Your task to perform on an android device: Open my contact list Image 0: 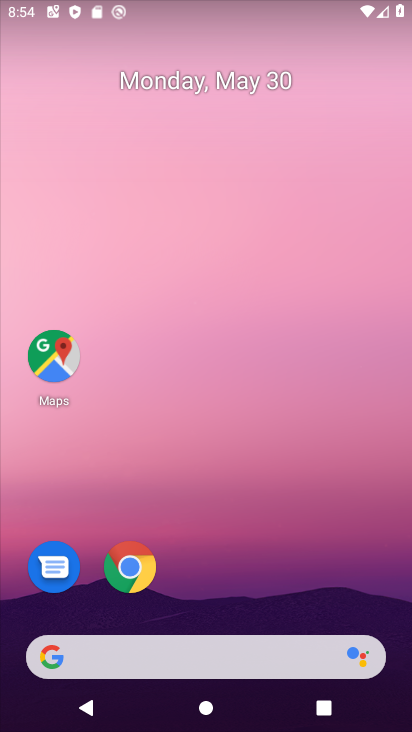
Step 0: drag from (233, 618) to (252, 75)
Your task to perform on an android device: Open my contact list Image 1: 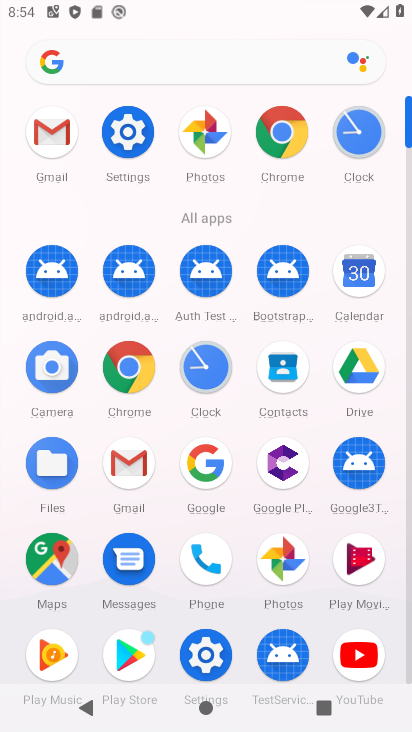
Step 1: click (277, 372)
Your task to perform on an android device: Open my contact list Image 2: 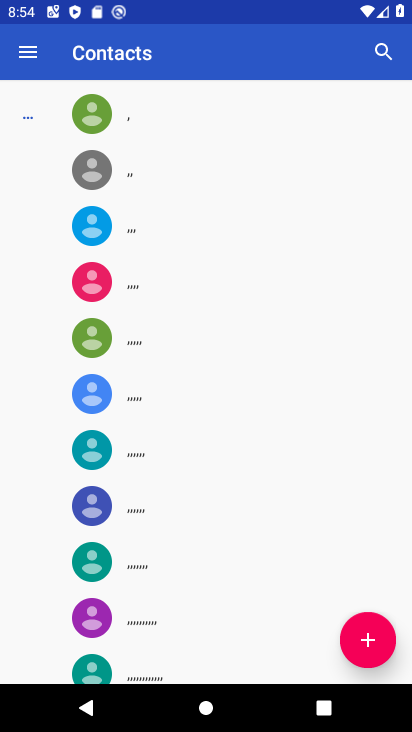
Step 2: task complete